Your task to perform on an android device: Open calendar and show me the second week of next month Image 0: 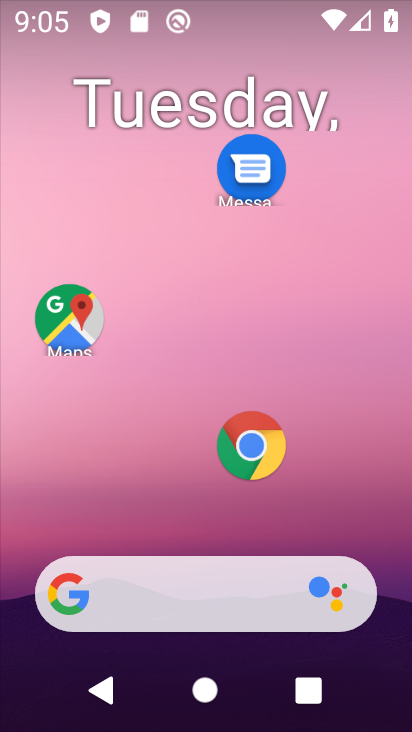
Step 0: drag from (179, 518) to (297, 35)
Your task to perform on an android device: Open calendar and show me the second week of next month Image 1: 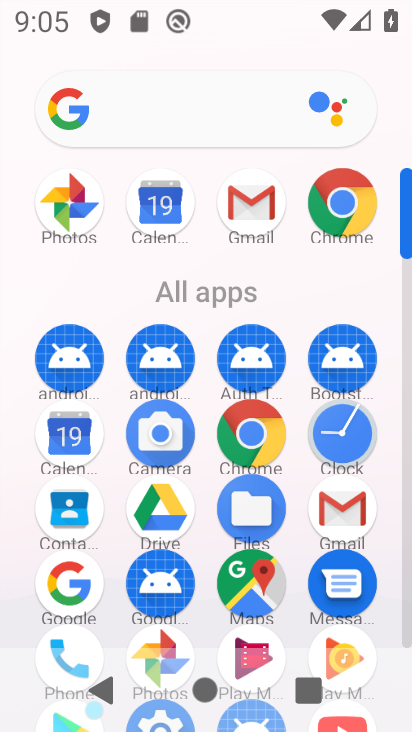
Step 1: click (74, 423)
Your task to perform on an android device: Open calendar and show me the second week of next month Image 2: 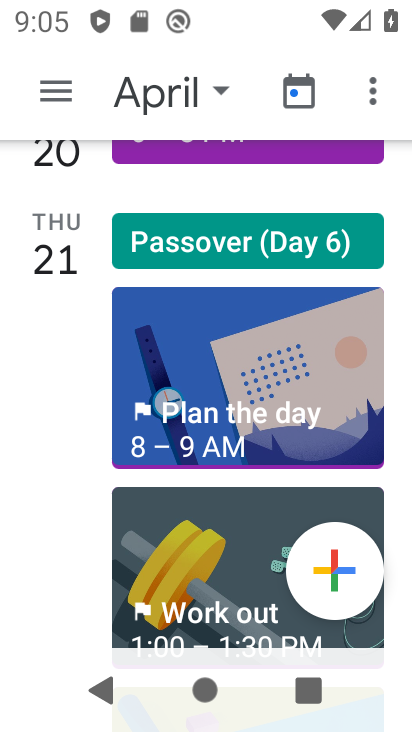
Step 2: click (187, 80)
Your task to perform on an android device: Open calendar and show me the second week of next month Image 3: 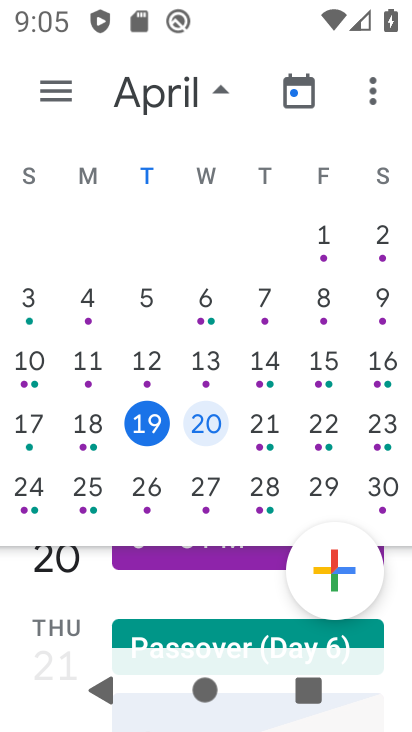
Step 3: drag from (381, 374) to (7, 302)
Your task to perform on an android device: Open calendar and show me the second week of next month Image 4: 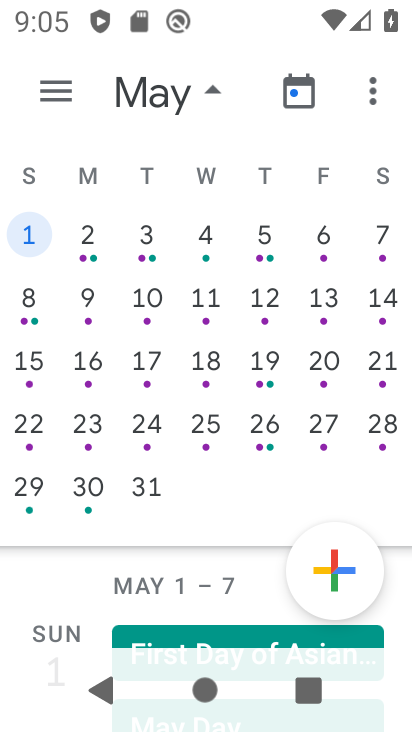
Step 4: click (82, 299)
Your task to perform on an android device: Open calendar and show me the second week of next month Image 5: 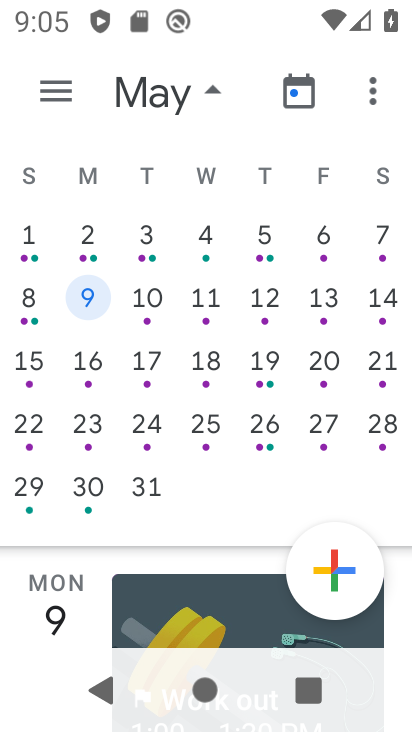
Step 5: task complete